Your task to perform on an android device: Turn off the flashlight Image 0: 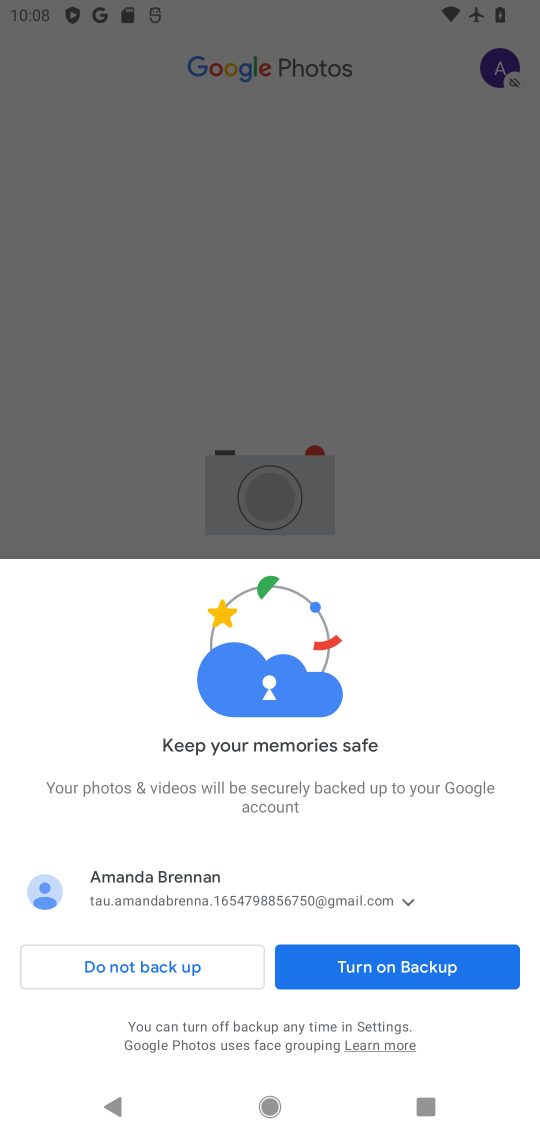
Step 0: press home button
Your task to perform on an android device: Turn off the flashlight Image 1: 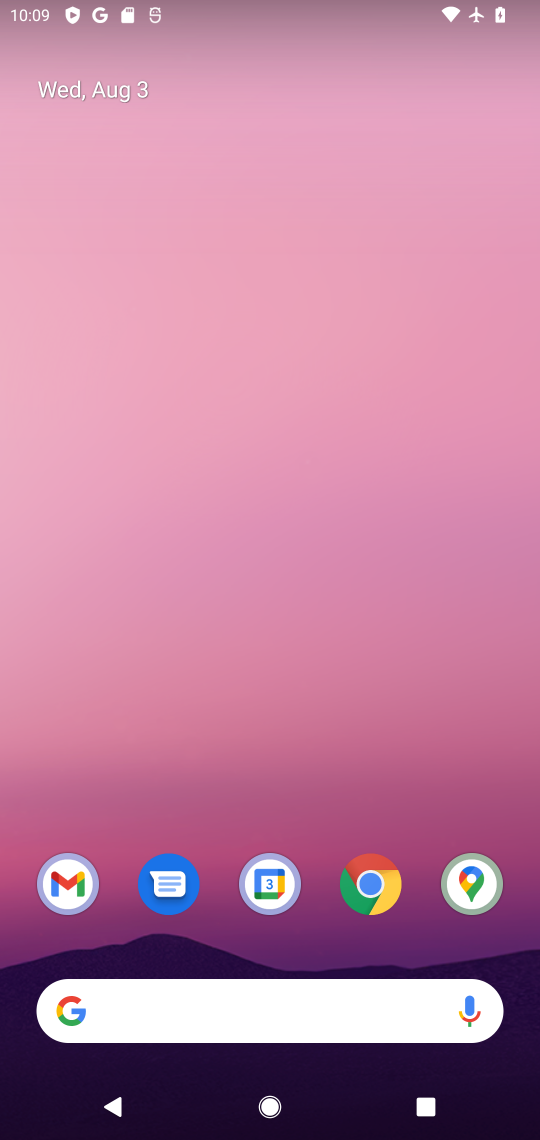
Step 1: drag from (245, 252) to (243, 762)
Your task to perform on an android device: Turn off the flashlight Image 2: 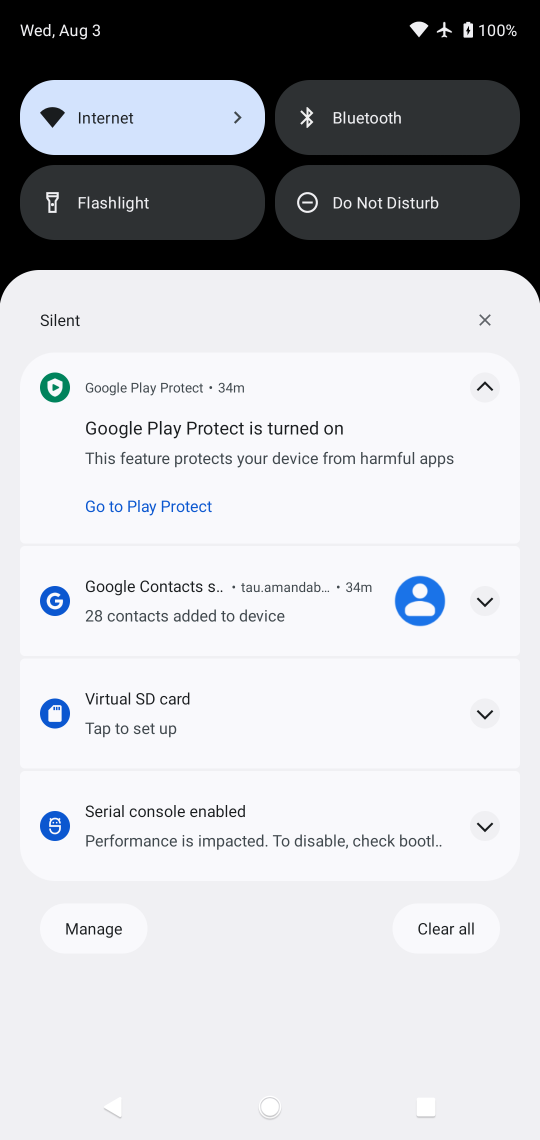
Step 2: click (95, 194)
Your task to perform on an android device: Turn off the flashlight Image 3: 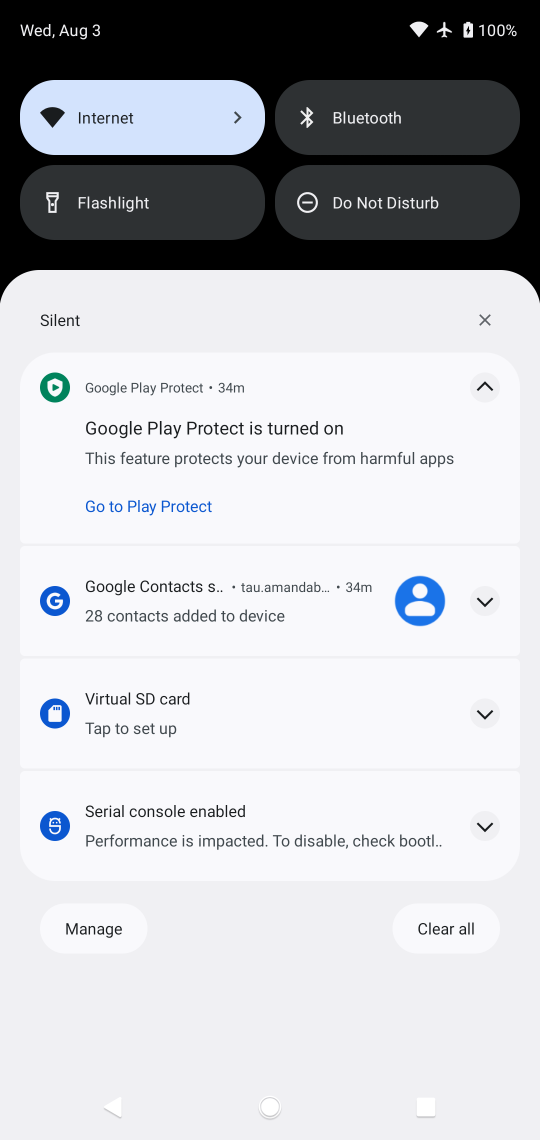
Step 3: task complete